Your task to perform on an android device: check storage Image 0: 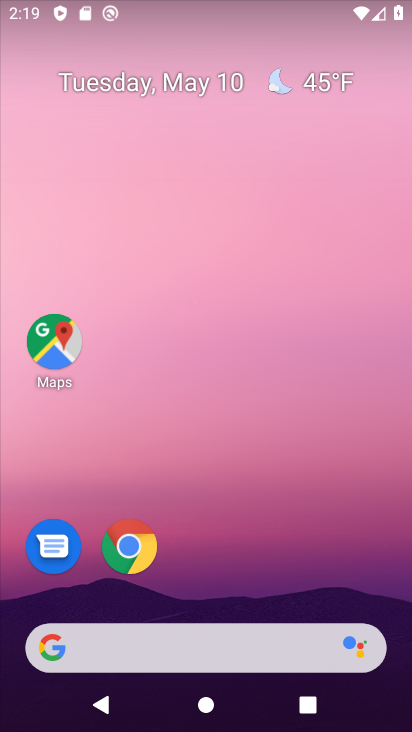
Step 0: drag from (288, 549) to (288, 27)
Your task to perform on an android device: check storage Image 1: 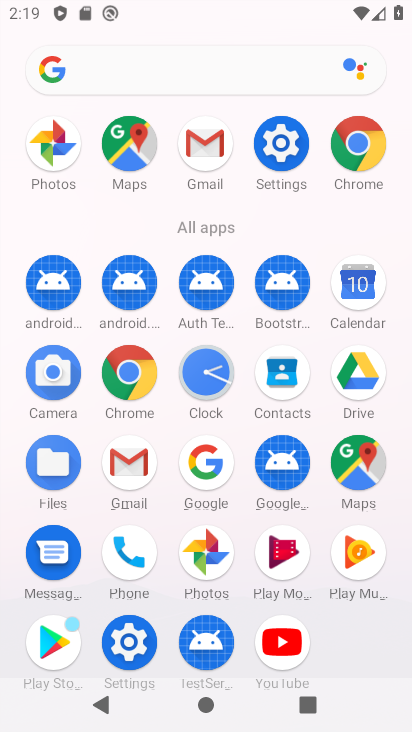
Step 1: click (132, 636)
Your task to perform on an android device: check storage Image 2: 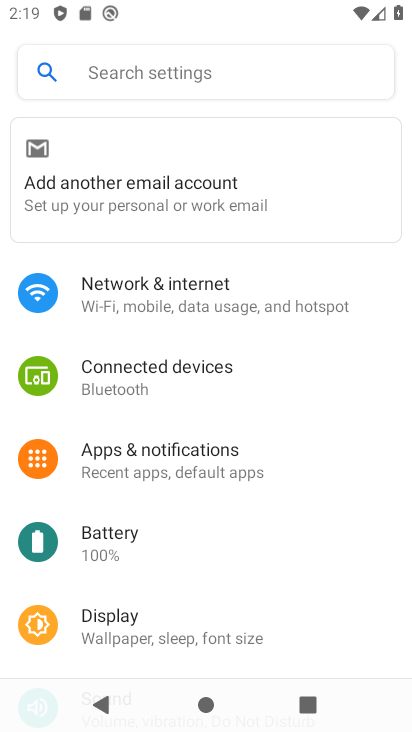
Step 2: drag from (235, 584) to (277, 164)
Your task to perform on an android device: check storage Image 3: 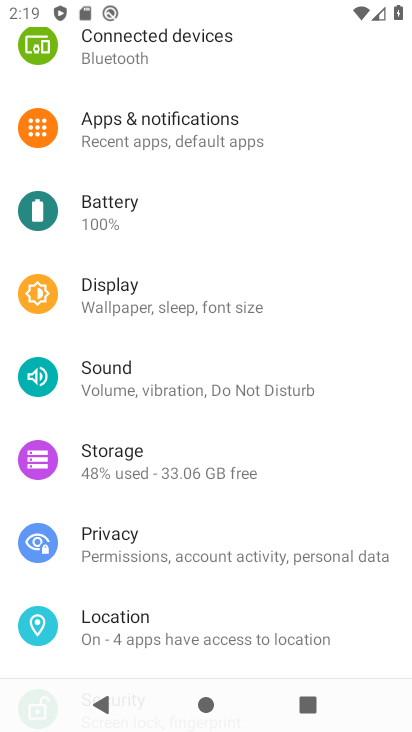
Step 3: drag from (231, 570) to (283, 121)
Your task to perform on an android device: check storage Image 4: 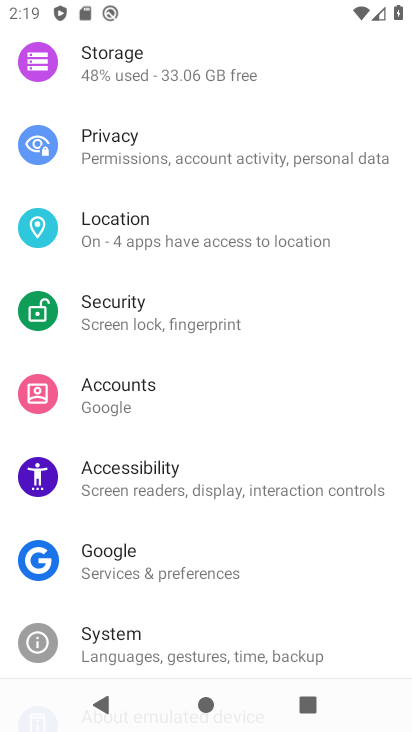
Step 4: drag from (198, 499) to (204, 85)
Your task to perform on an android device: check storage Image 5: 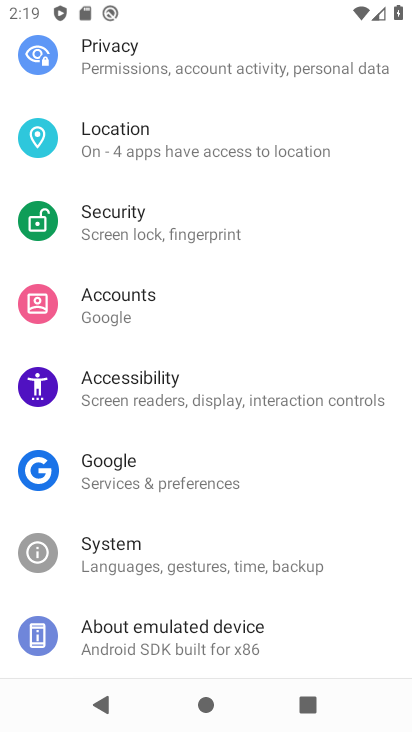
Step 5: drag from (199, 145) to (169, 461)
Your task to perform on an android device: check storage Image 6: 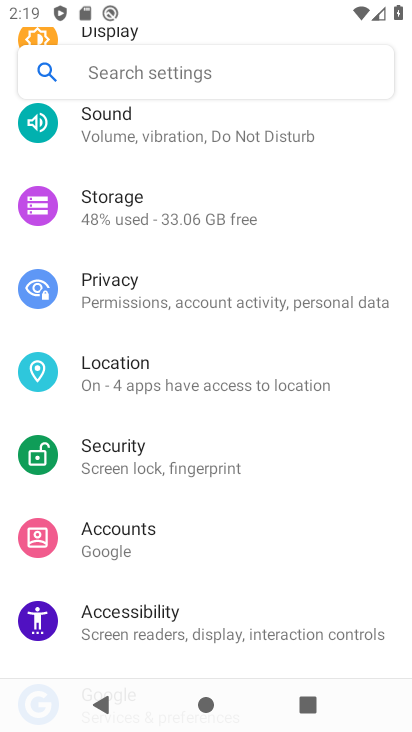
Step 6: click (129, 217)
Your task to perform on an android device: check storage Image 7: 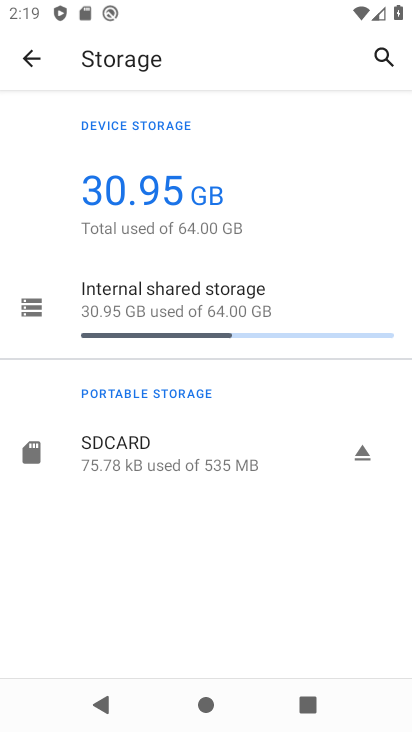
Step 7: task complete